Your task to perform on an android device: Open my contact list Image 0: 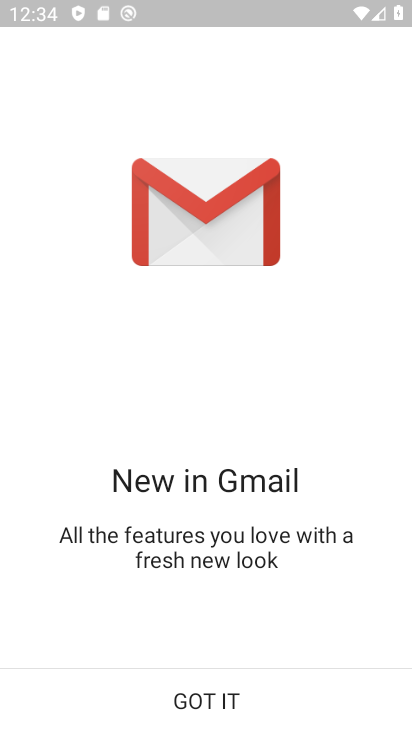
Step 0: click (224, 687)
Your task to perform on an android device: Open my contact list Image 1: 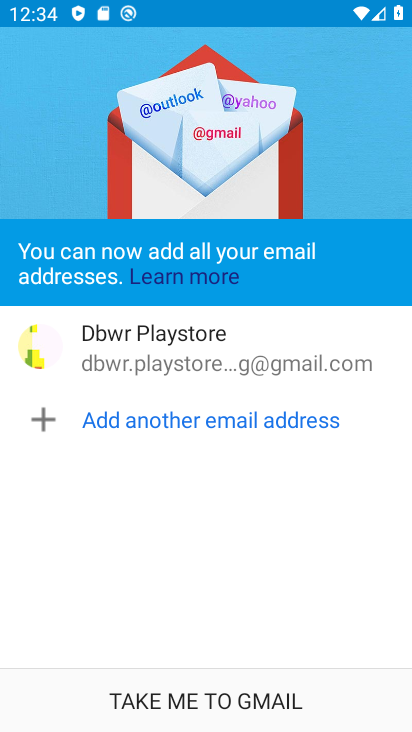
Step 1: press home button
Your task to perform on an android device: Open my contact list Image 2: 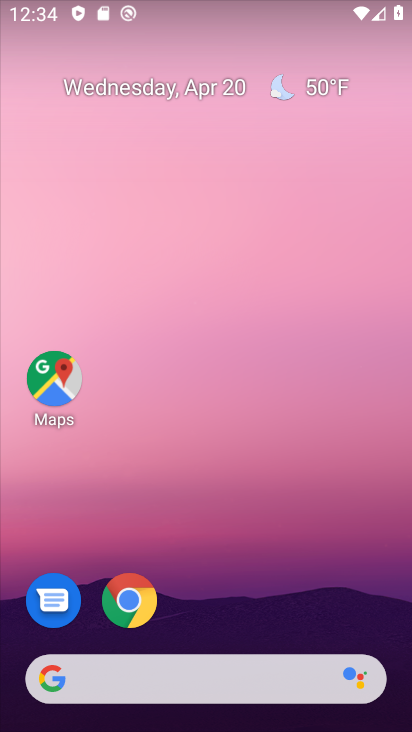
Step 2: drag from (285, 596) to (260, 120)
Your task to perform on an android device: Open my contact list Image 3: 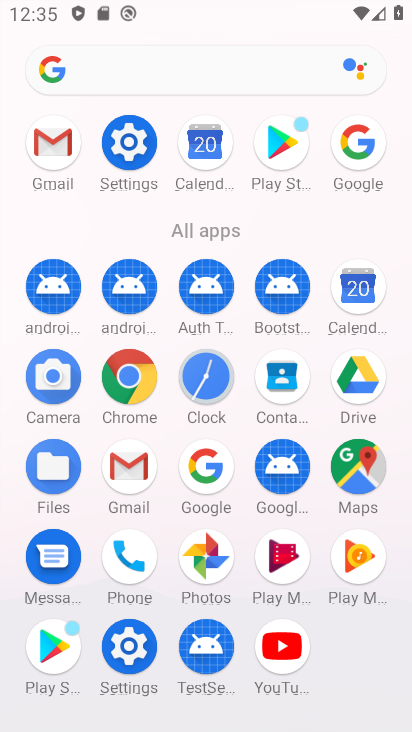
Step 3: click (276, 384)
Your task to perform on an android device: Open my contact list Image 4: 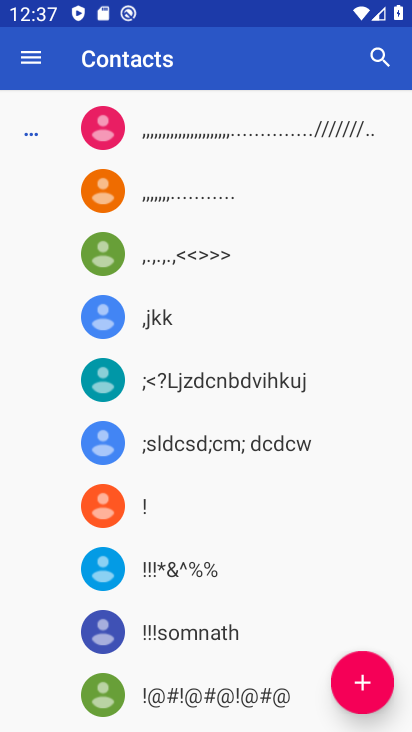
Step 4: task complete